Your task to perform on an android device: Is it going to rain today? Image 0: 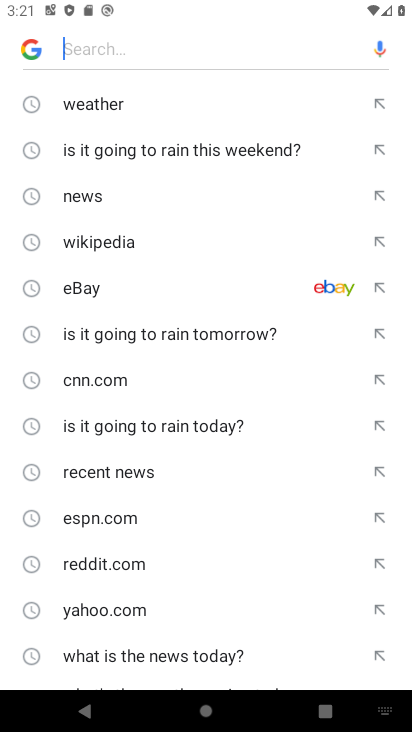
Step 0: press back button
Your task to perform on an android device: Is it going to rain today? Image 1: 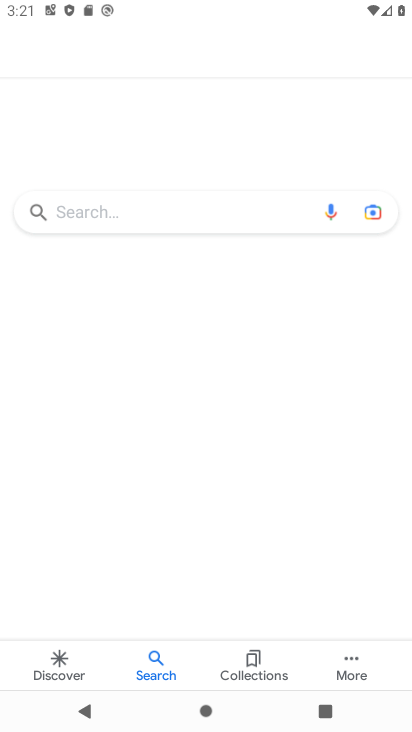
Step 1: press back button
Your task to perform on an android device: Is it going to rain today? Image 2: 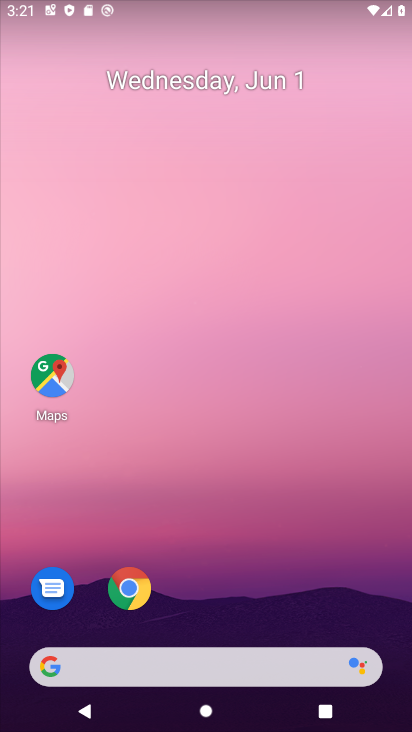
Step 2: drag from (19, 294) to (140, 306)
Your task to perform on an android device: Is it going to rain today? Image 3: 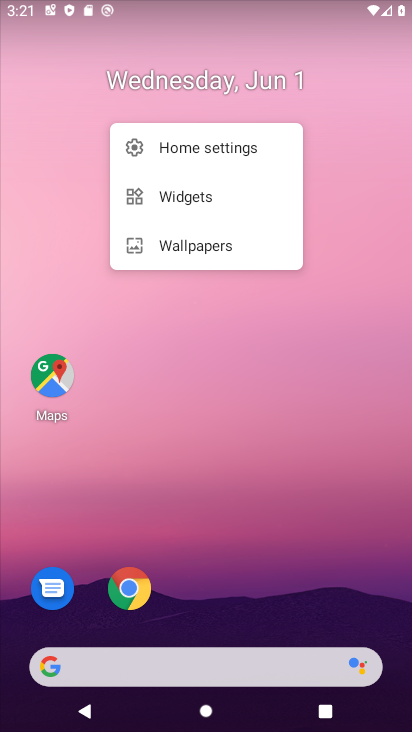
Step 3: drag from (8, 286) to (280, 368)
Your task to perform on an android device: Is it going to rain today? Image 4: 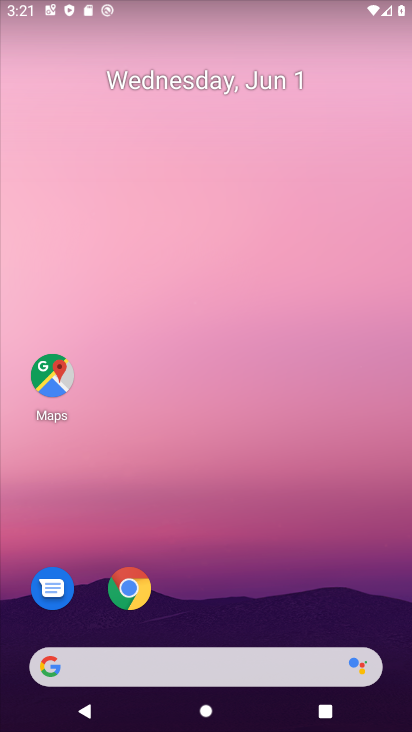
Step 4: drag from (8, 276) to (401, 350)
Your task to perform on an android device: Is it going to rain today? Image 5: 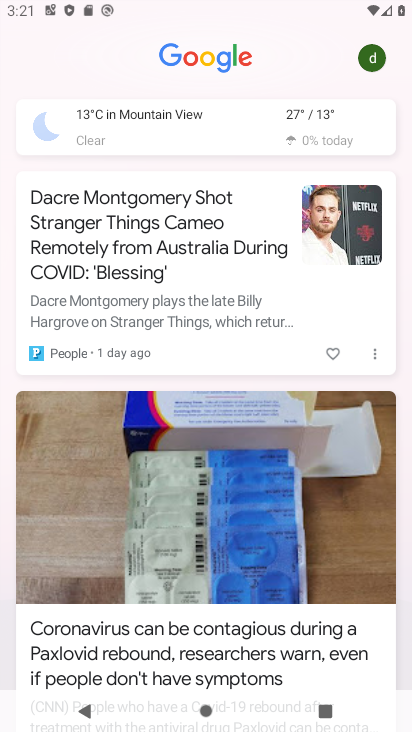
Step 5: click (241, 135)
Your task to perform on an android device: Is it going to rain today? Image 6: 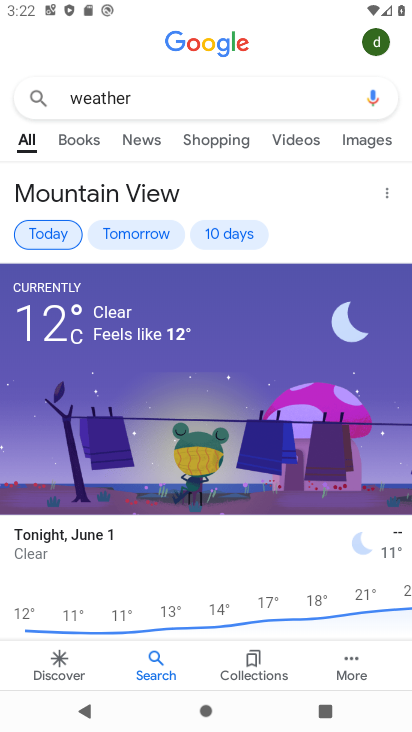
Step 6: task complete